Your task to perform on an android device: Go to battery settings Image 0: 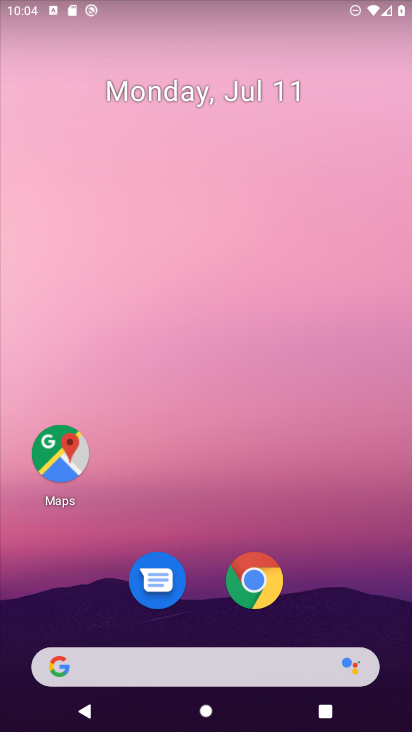
Step 0: drag from (242, 395) to (235, 44)
Your task to perform on an android device: Go to battery settings Image 1: 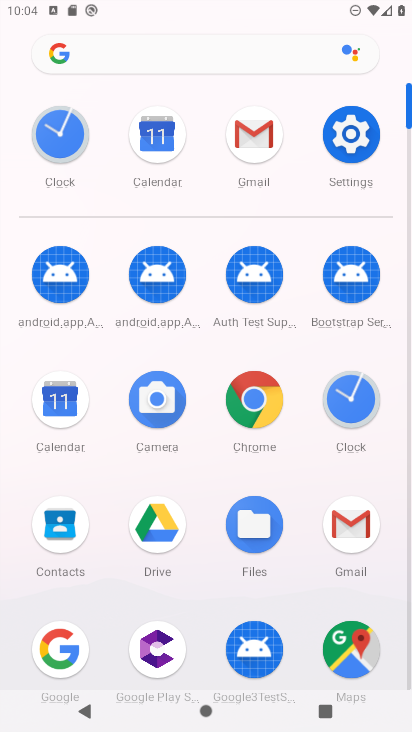
Step 1: click (354, 133)
Your task to perform on an android device: Go to battery settings Image 2: 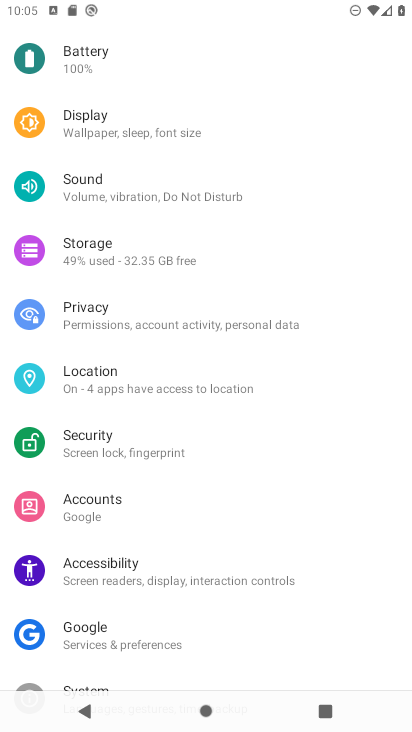
Step 2: click (95, 67)
Your task to perform on an android device: Go to battery settings Image 3: 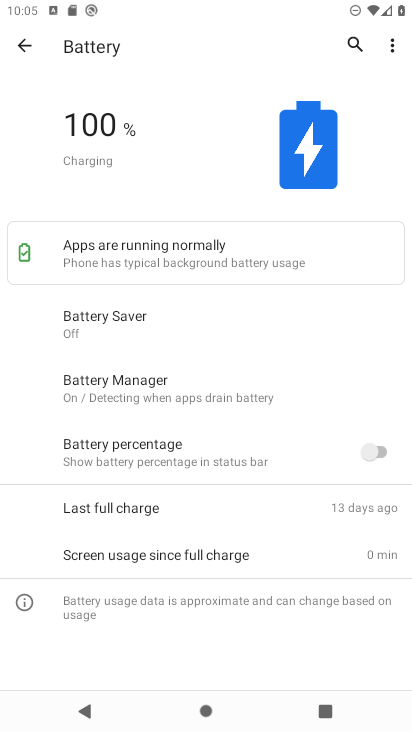
Step 3: task complete